Your task to perform on an android device: move an email to a new category in the gmail app Image 0: 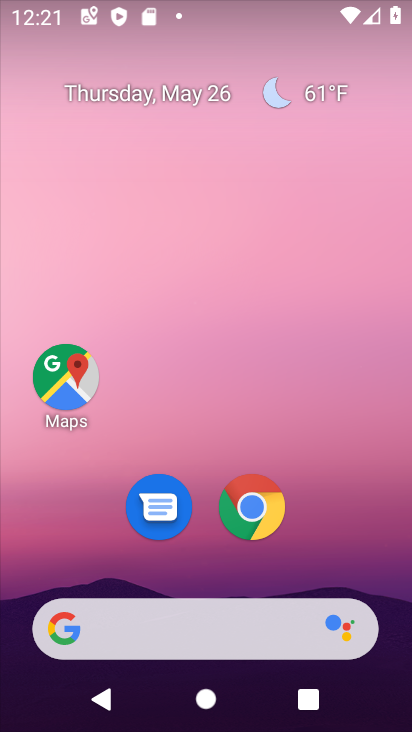
Step 0: drag from (359, 517) to (287, 184)
Your task to perform on an android device: move an email to a new category in the gmail app Image 1: 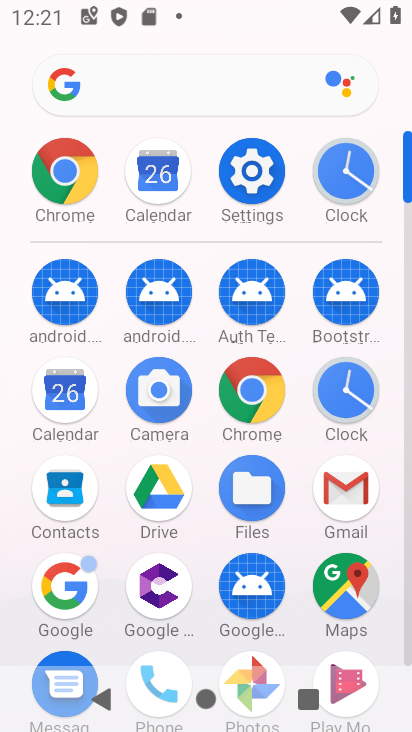
Step 1: click (329, 520)
Your task to perform on an android device: move an email to a new category in the gmail app Image 2: 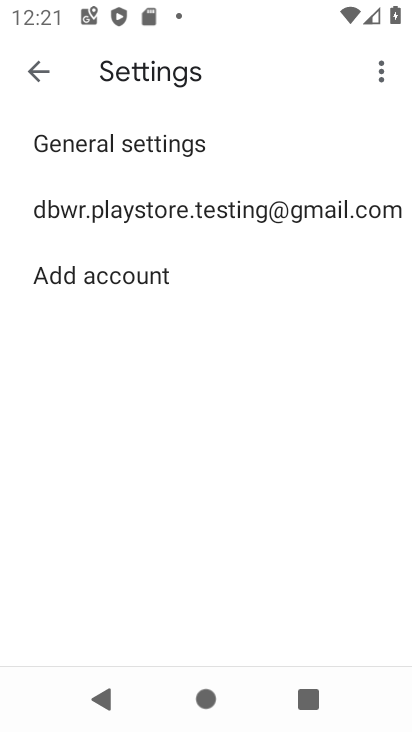
Step 2: click (33, 77)
Your task to perform on an android device: move an email to a new category in the gmail app Image 3: 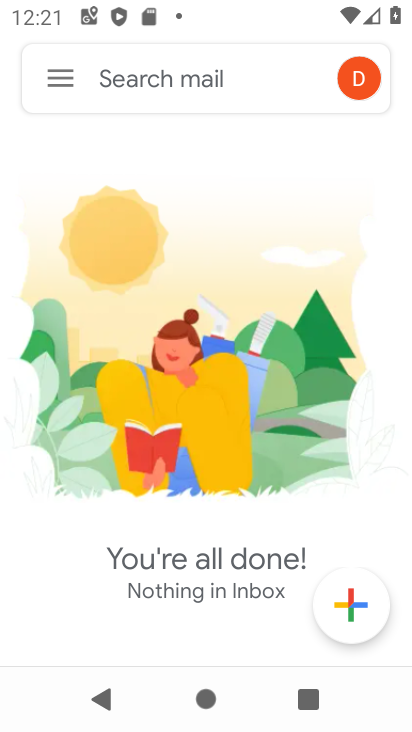
Step 3: click (33, 77)
Your task to perform on an android device: move an email to a new category in the gmail app Image 4: 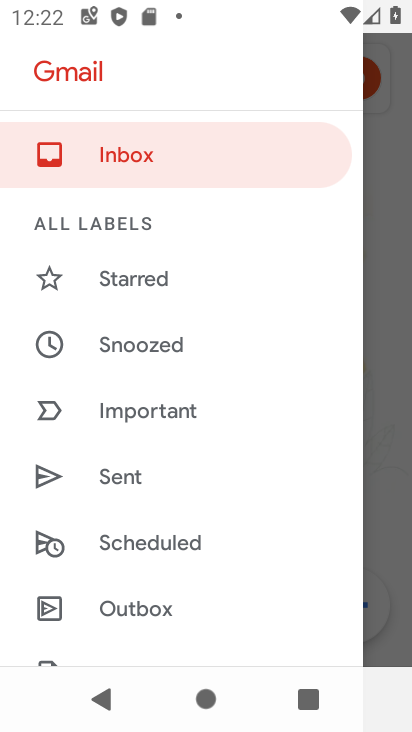
Step 4: drag from (154, 578) to (147, 419)
Your task to perform on an android device: move an email to a new category in the gmail app Image 5: 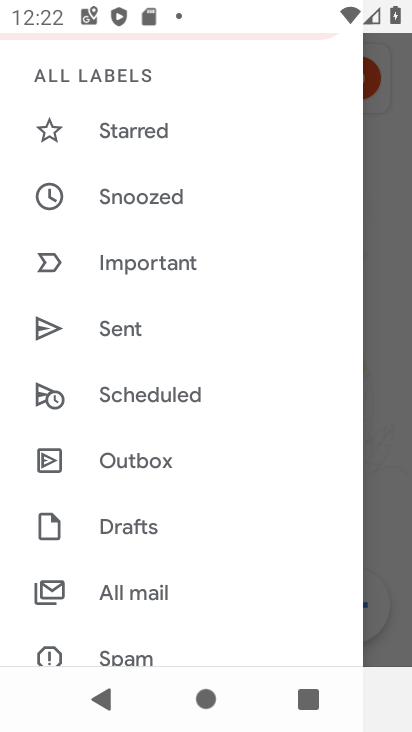
Step 5: click (177, 605)
Your task to perform on an android device: move an email to a new category in the gmail app Image 6: 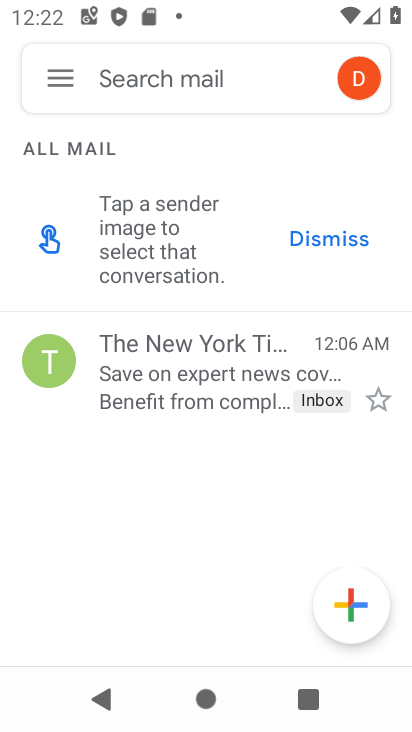
Step 6: click (216, 354)
Your task to perform on an android device: move an email to a new category in the gmail app Image 7: 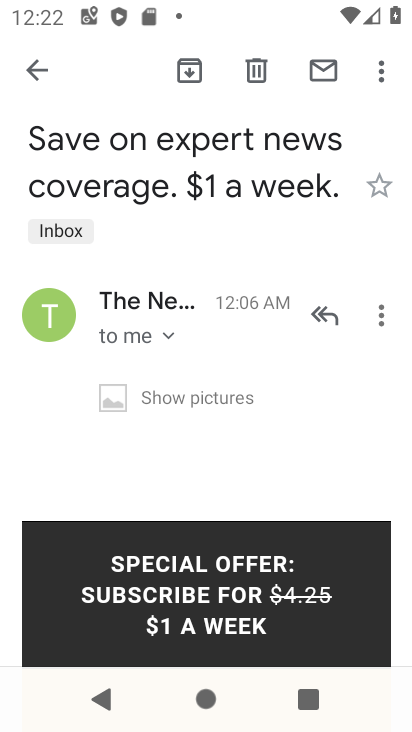
Step 7: click (399, 82)
Your task to perform on an android device: move an email to a new category in the gmail app Image 8: 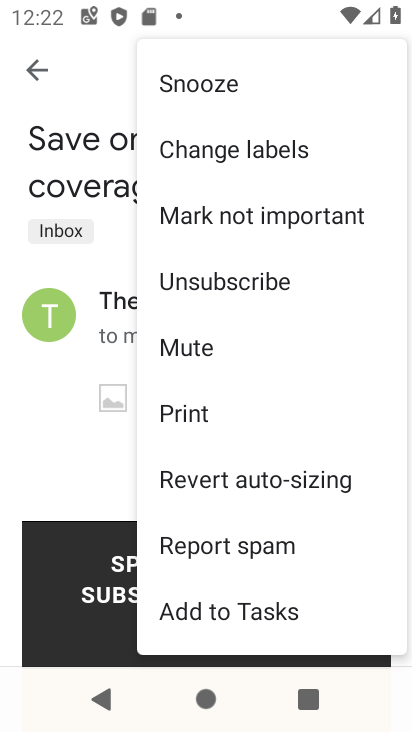
Step 8: click (293, 147)
Your task to perform on an android device: move an email to a new category in the gmail app Image 9: 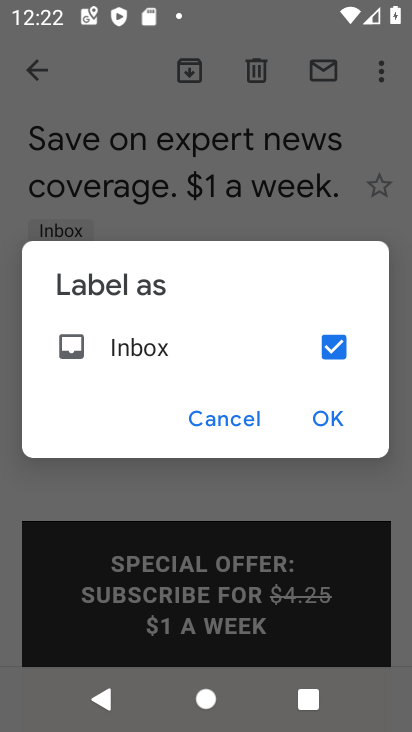
Step 9: click (335, 425)
Your task to perform on an android device: move an email to a new category in the gmail app Image 10: 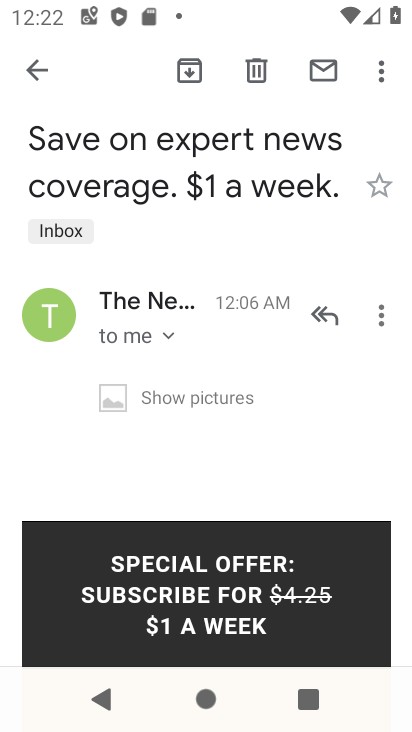
Step 10: task complete